Your task to perform on an android device: read, delete, or share a saved page in the chrome app Image 0: 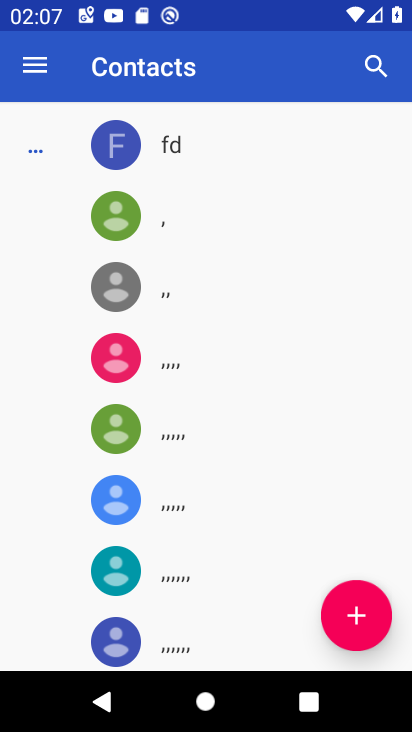
Step 0: press home button
Your task to perform on an android device: read, delete, or share a saved page in the chrome app Image 1: 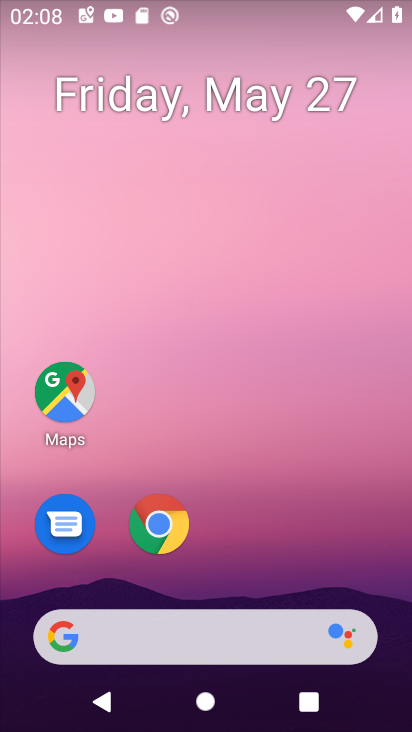
Step 1: click (177, 522)
Your task to perform on an android device: read, delete, or share a saved page in the chrome app Image 2: 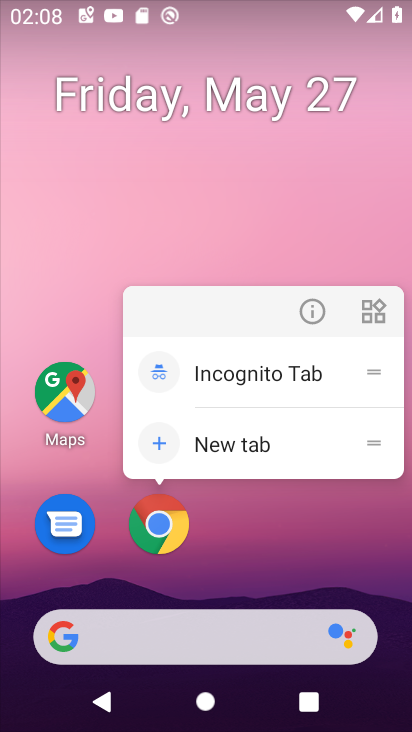
Step 2: click (156, 520)
Your task to perform on an android device: read, delete, or share a saved page in the chrome app Image 3: 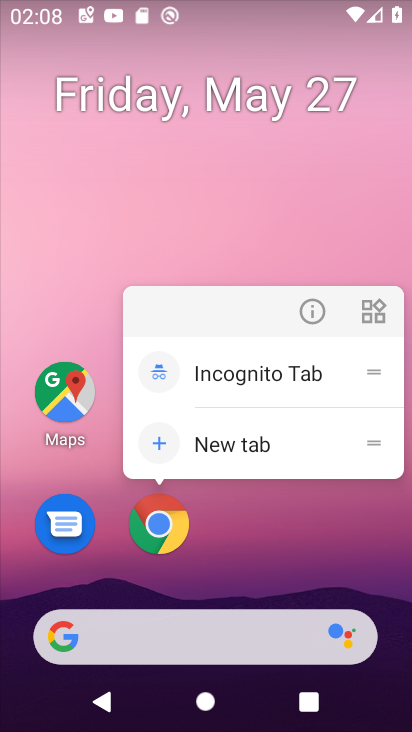
Step 3: click (156, 522)
Your task to perform on an android device: read, delete, or share a saved page in the chrome app Image 4: 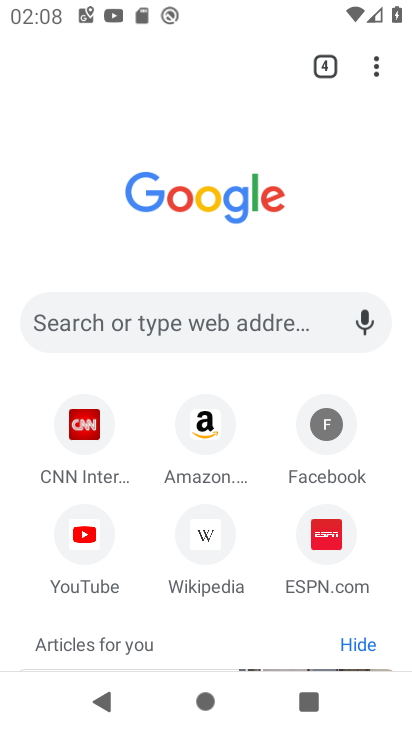
Step 4: click (372, 69)
Your task to perform on an android device: read, delete, or share a saved page in the chrome app Image 5: 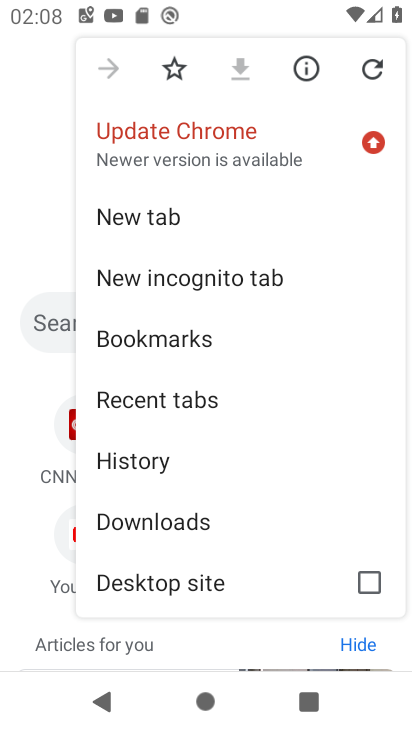
Step 5: click (197, 523)
Your task to perform on an android device: read, delete, or share a saved page in the chrome app Image 6: 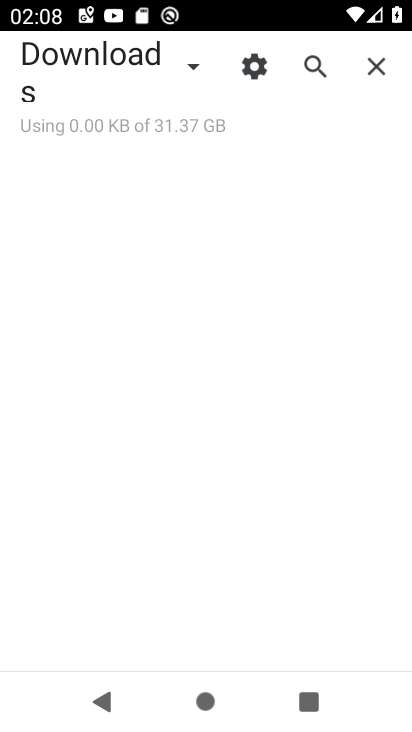
Step 6: task complete